Your task to perform on an android device: turn on wifi Image 0: 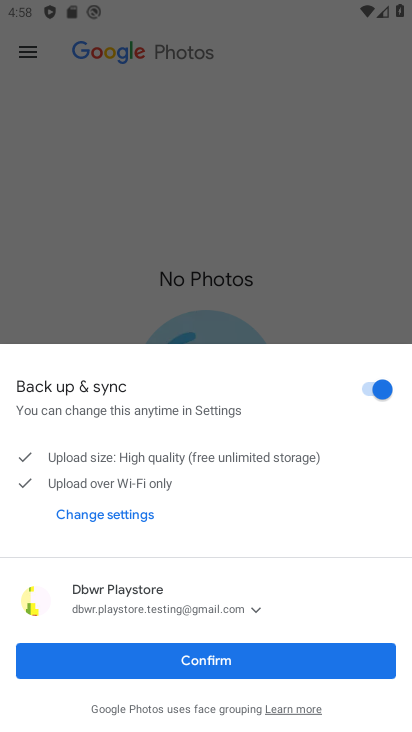
Step 0: press home button
Your task to perform on an android device: turn on wifi Image 1: 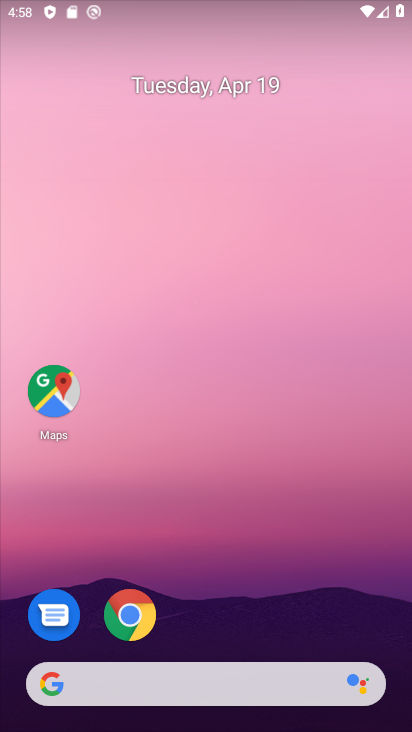
Step 1: drag from (201, 721) to (202, 88)
Your task to perform on an android device: turn on wifi Image 2: 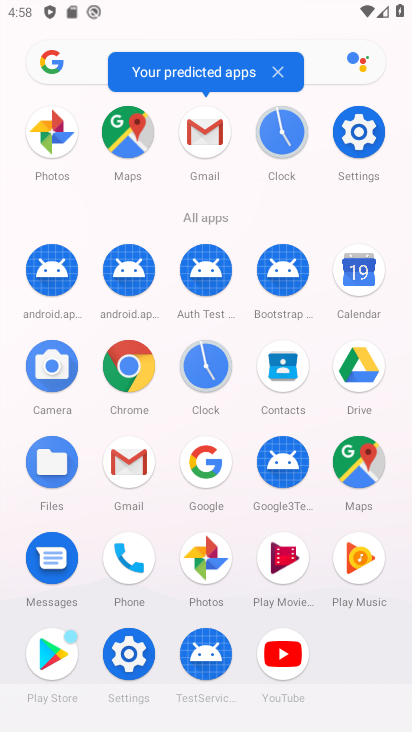
Step 2: click (357, 129)
Your task to perform on an android device: turn on wifi Image 3: 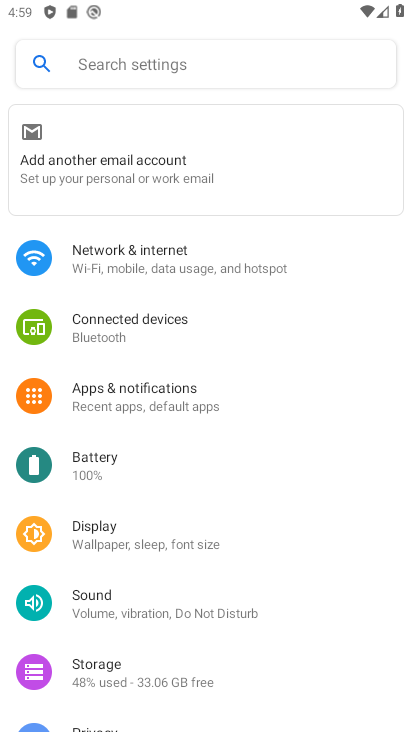
Step 3: click (127, 258)
Your task to perform on an android device: turn on wifi Image 4: 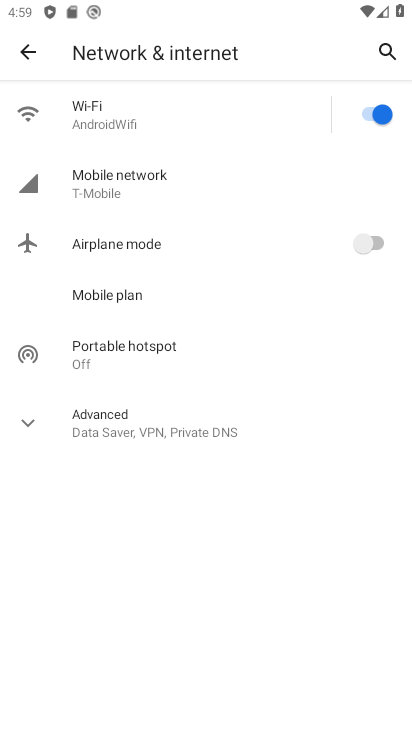
Step 4: task complete